Your task to perform on an android device: open sync settings in chrome Image 0: 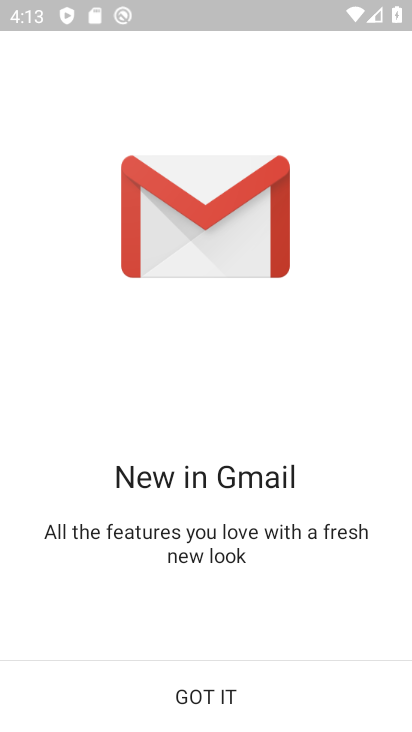
Step 0: press home button
Your task to perform on an android device: open sync settings in chrome Image 1: 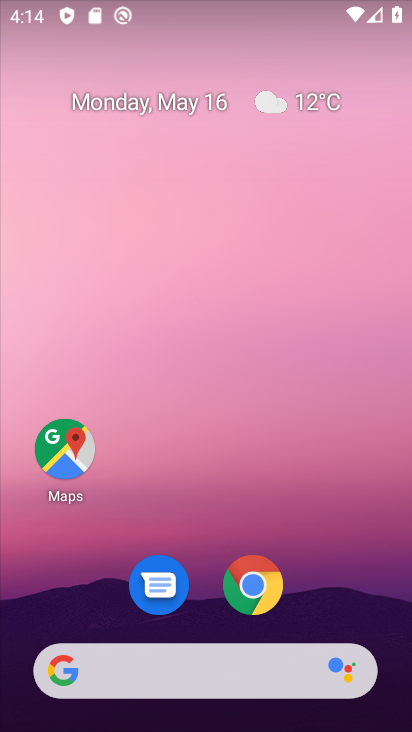
Step 1: click (256, 584)
Your task to perform on an android device: open sync settings in chrome Image 2: 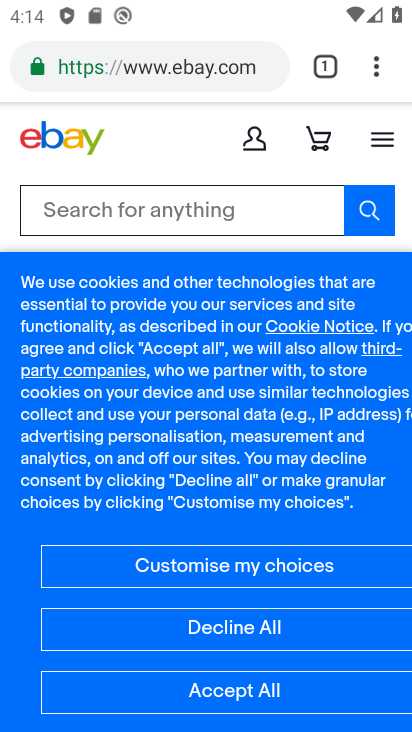
Step 2: click (374, 68)
Your task to perform on an android device: open sync settings in chrome Image 3: 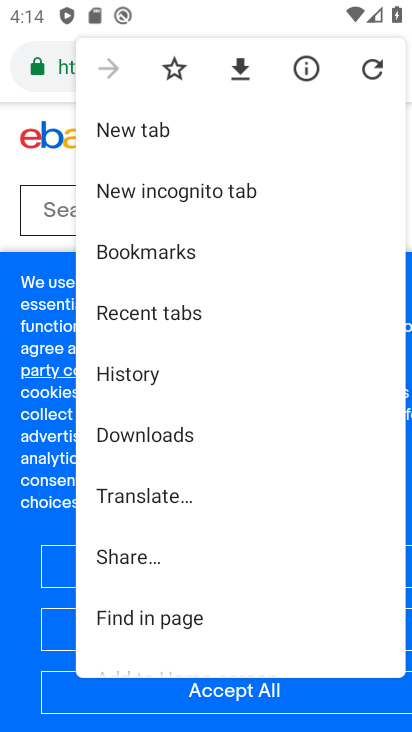
Step 3: drag from (220, 505) to (253, 299)
Your task to perform on an android device: open sync settings in chrome Image 4: 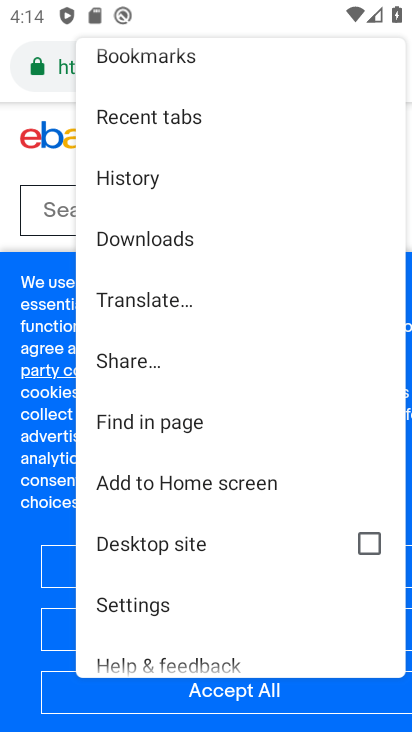
Step 4: click (198, 605)
Your task to perform on an android device: open sync settings in chrome Image 5: 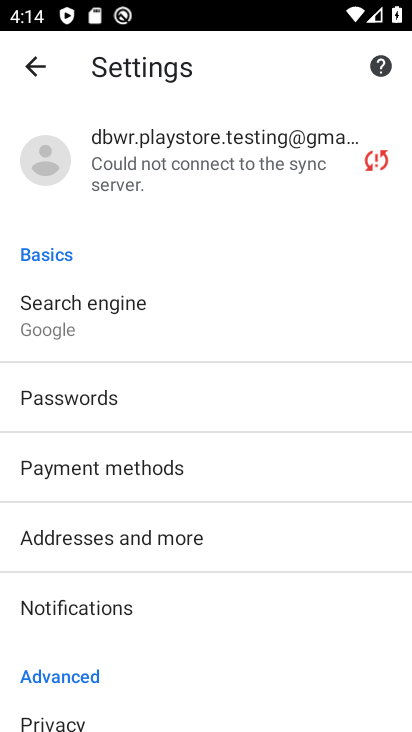
Step 5: click (173, 159)
Your task to perform on an android device: open sync settings in chrome Image 6: 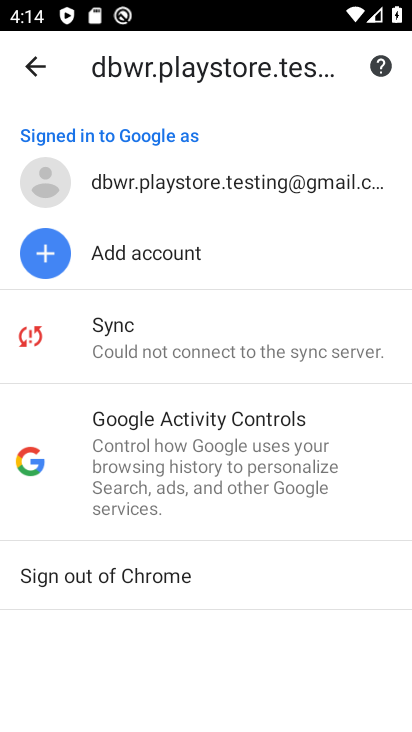
Step 6: click (150, 332)
Your task to perform on an android device: open sync settings in chrome Image 7: 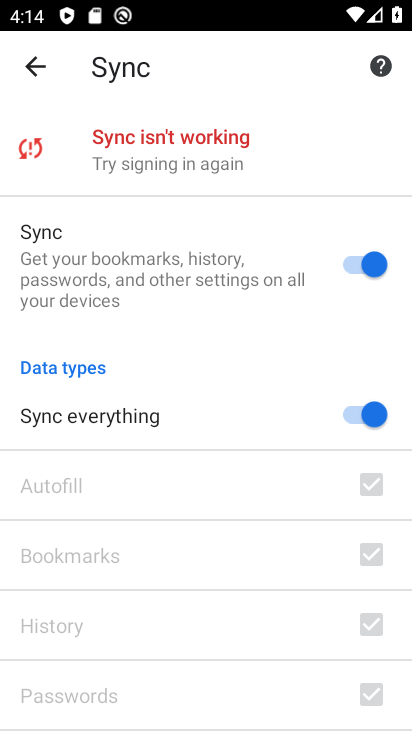
Step 7: task complete